Your task to perform on an android device: turn notification dots on Image 0: 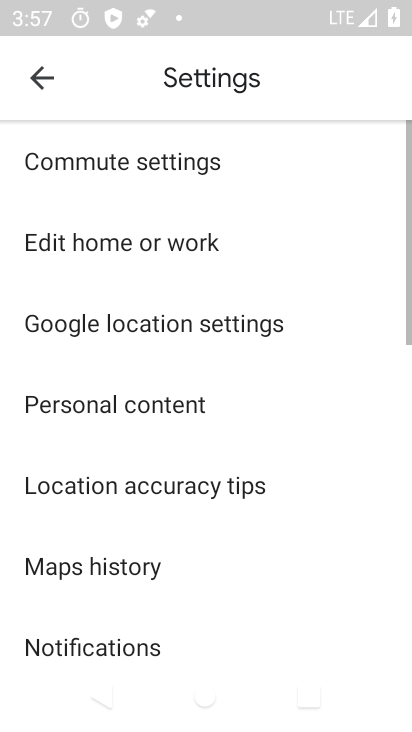
Step 0: press home button
Your task to perform on an android device: turn notification dots on Image 1: 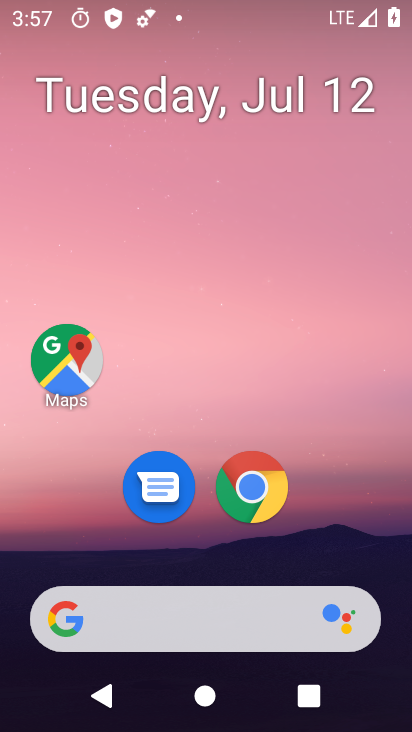
Step 1: drag from (223, 685) to (273, 176)
Your task to perform on an android device: turn notification dots on Image 2: 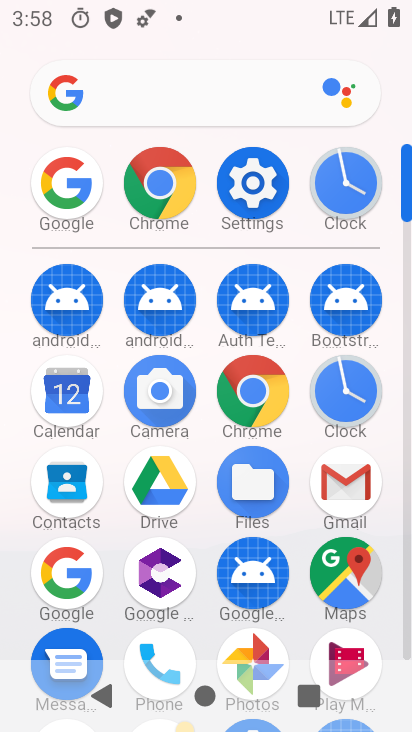
Step 2: click (263, 207)
Your task to perform on an android device: turn notification dots on Image 3: 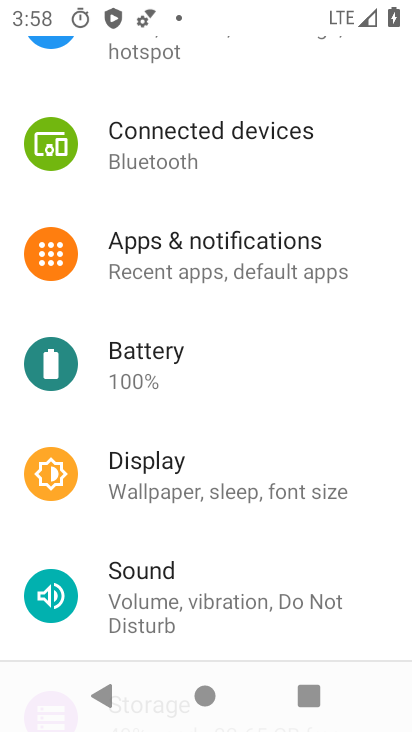
Step 3: click (139, 269)
Your task to perform on an android device: turn notification dots on Image 4: 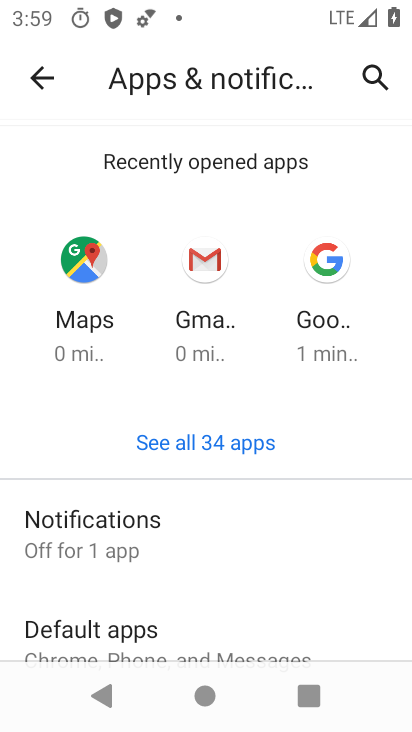
Step 4: click (126, 543)
Your task to perform on an android device: turn notification dots on Image 5: 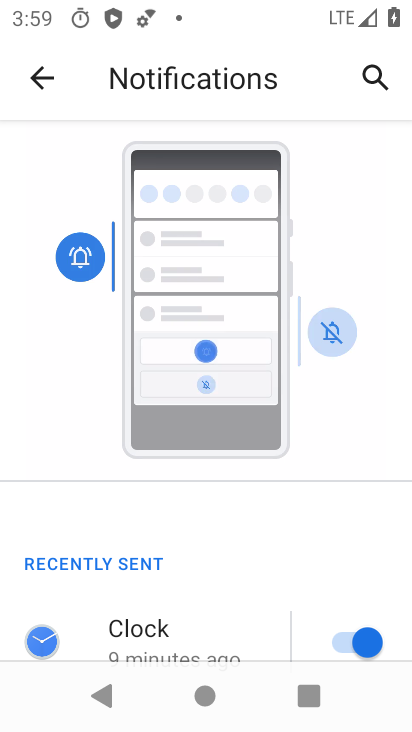
Step 5: drag from (155, 529) to (252, 113)
Your task to perform on an android device: turn notification dots on Image 6: 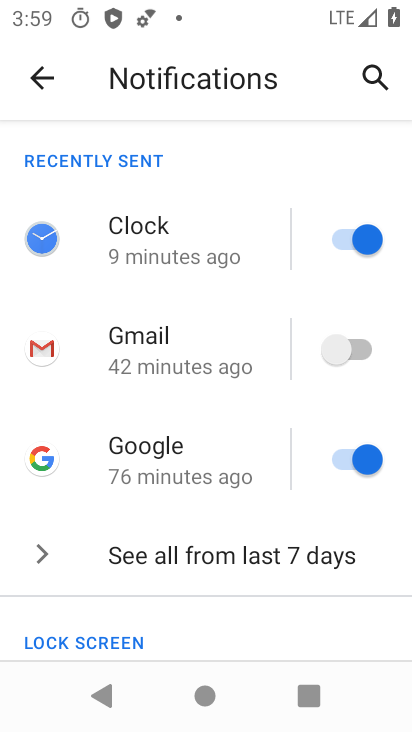
Step 6: drag from (201, 507) to (233, 186)
Your task to perform on an android device: turn notification dots on Image 7: 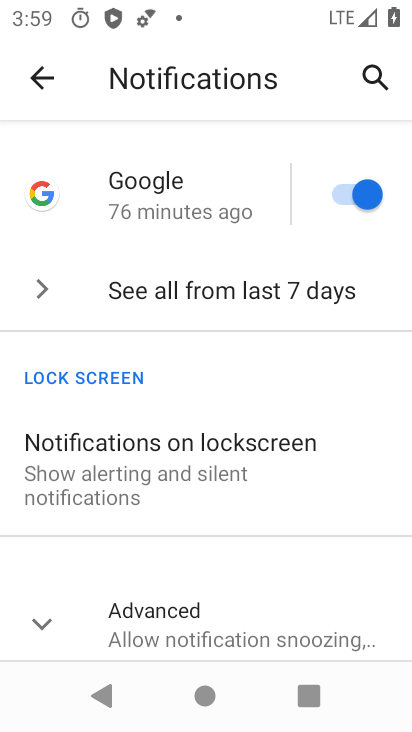
Step 7: click (188, 634)
Your task to perform on an android device: turn notification dots on Image 8: 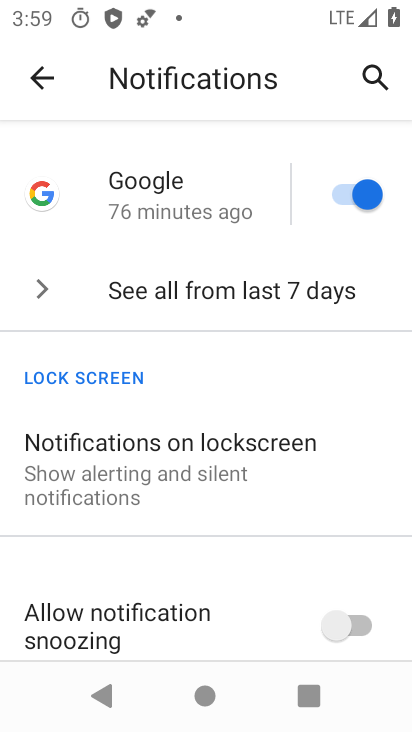
Step 8: task complete